Your task to perform on an android device: Go to settings Image 0: 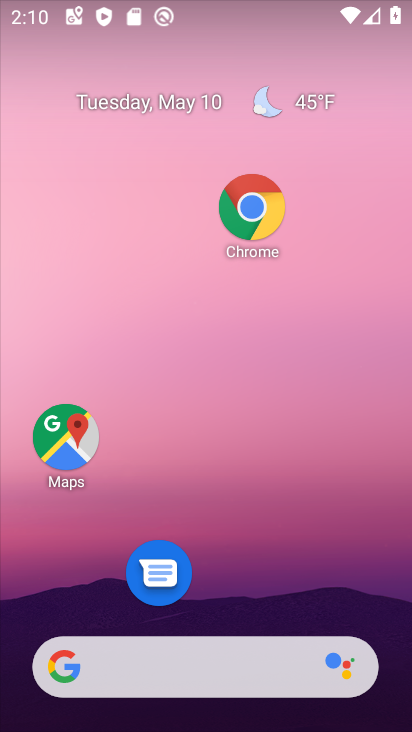
Step 0: drag from (260, 597) to (256, 113)
Your task to perform on an android device: Go to settings Image 1: 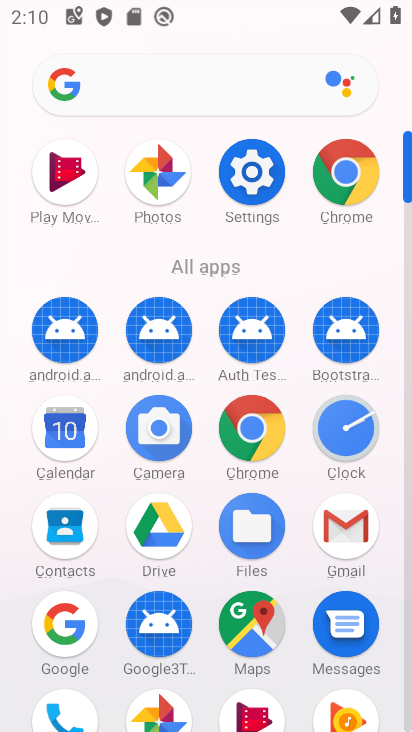
Step 1: click (246, 201)
Your task to perform on an android device: Go to settings Image 2: 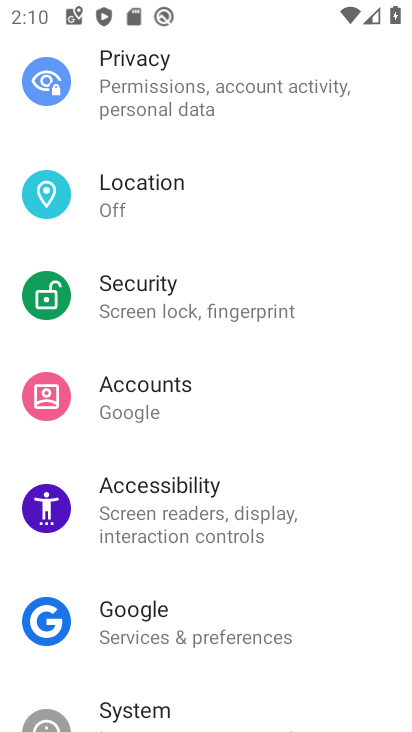
Step 2: task complete